Your task to perform on an android device: Open the map Image 0: 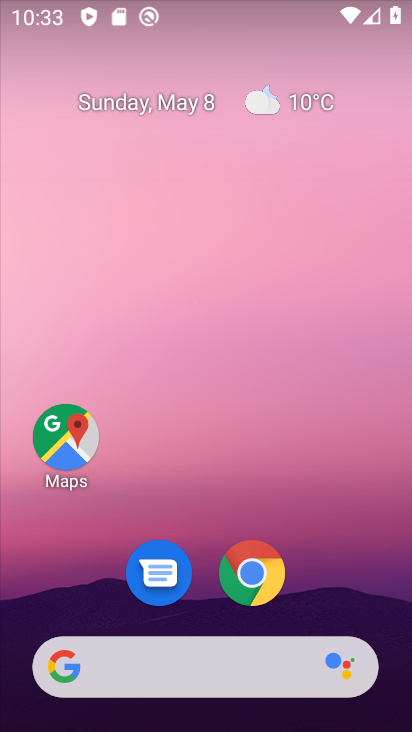
Step 0: click (75, 423)
Your task to perform on an android device: Open the map Image 1: 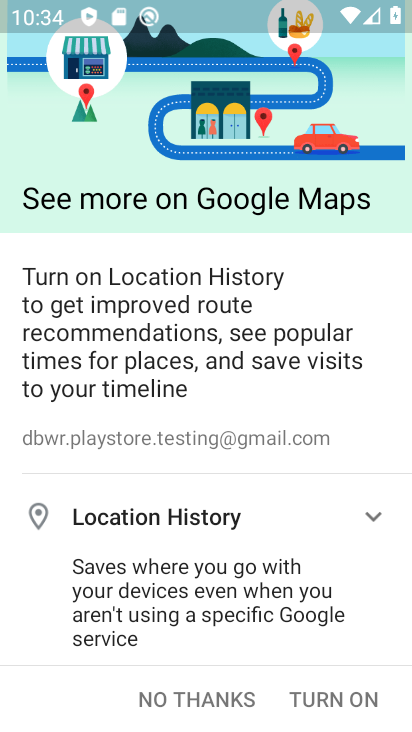
Step 1: click (218, 693)
Your task to perform on an android device: Open the map Image 2: 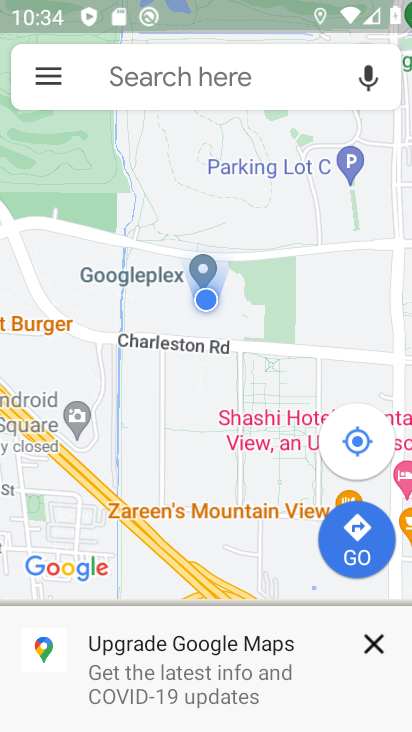
Step 2: task complete